Your task to perform on an android device: Check the news Image 0: 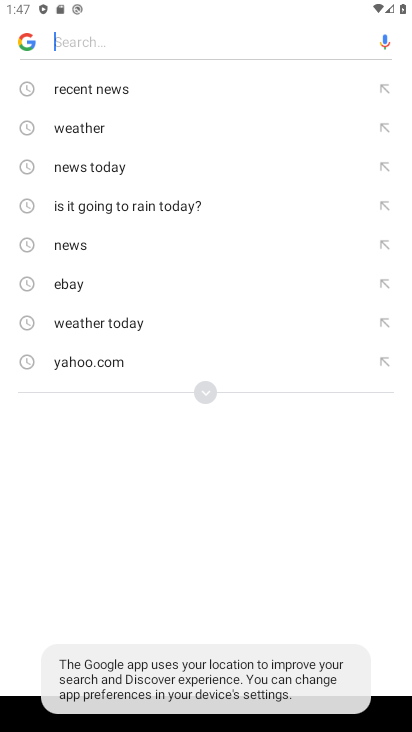
Step 0: press home button
Your task to perform on an android device: Check the news Image 1: 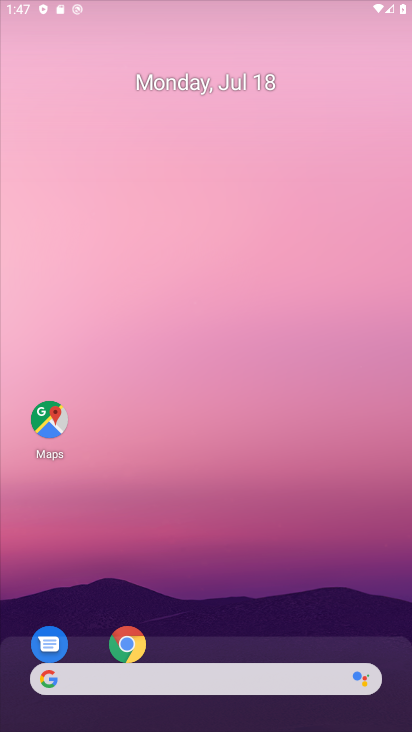
Step 1: press home button
Your task to perform on an android device: Check the news Image 2: 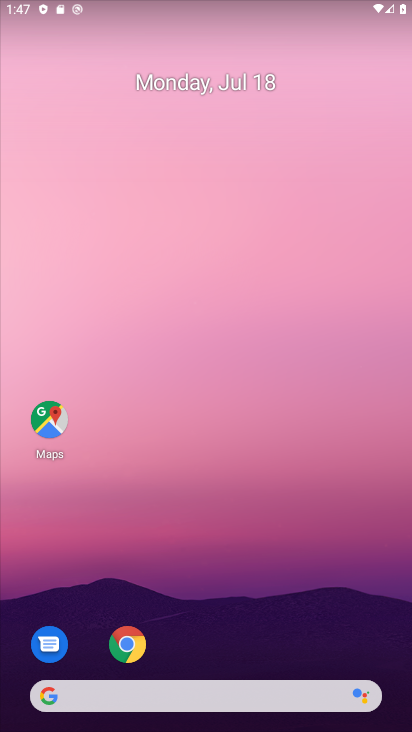
Step 2: click (408, 186)
Your task to perform on an android device: Check the news Image 3: 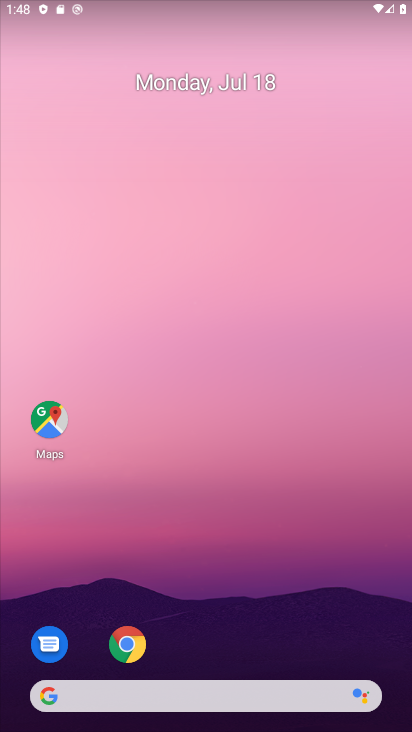
Step 3: task complete